Your task to perform on an android device: change your default location settings in chrome Image 0: 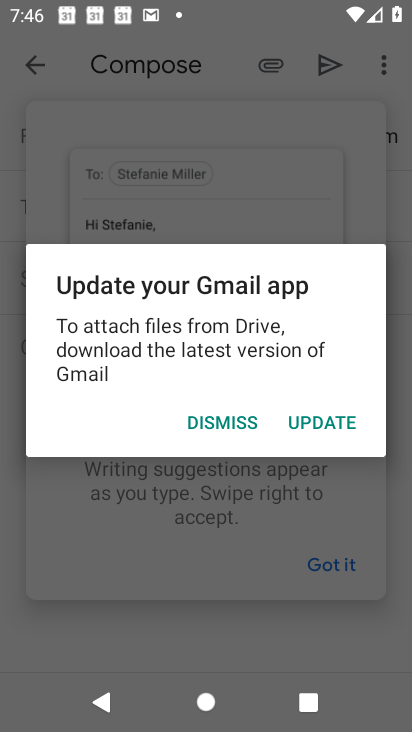
Step 0: press home button
Your task to perform on an android device: change your default location settings in chrome Image 1: 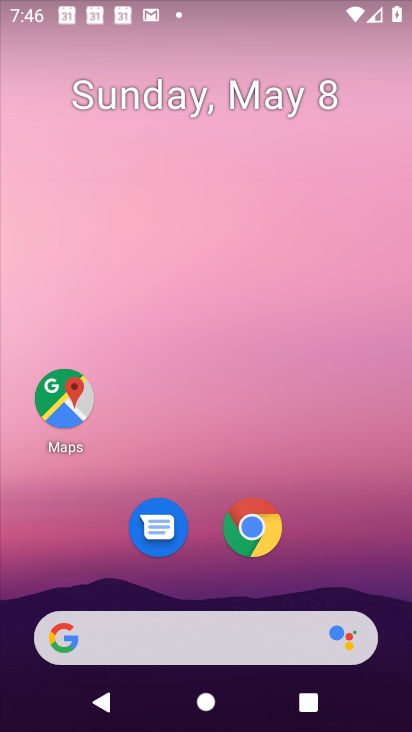
Step 1: click (265, 520)
Your task to perform on an android device: change your default location settings in chrome Image 2: 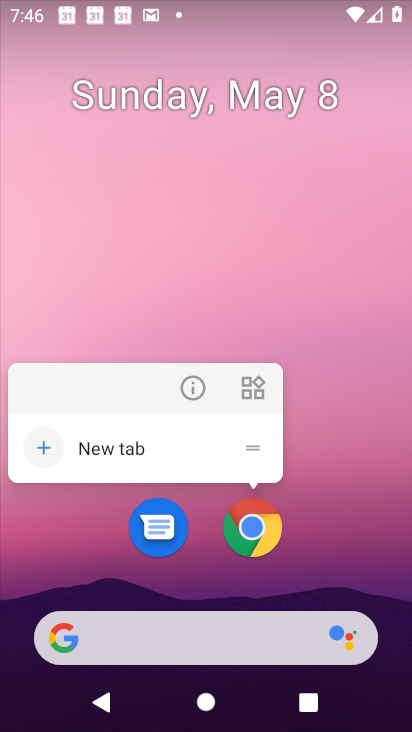
Step 2: click (266, 519)
Your task to perform on an android device: change your default location settings in chrome Image 3: 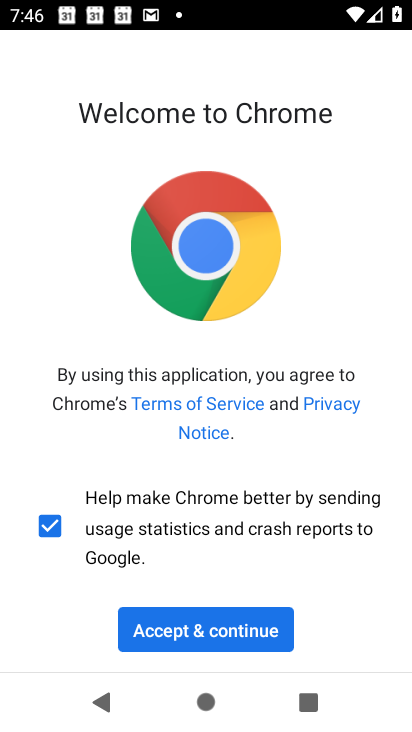
Step 3: click (206, 635)
Your task to perform on an android device: change your default location settings in chrome Image 4: 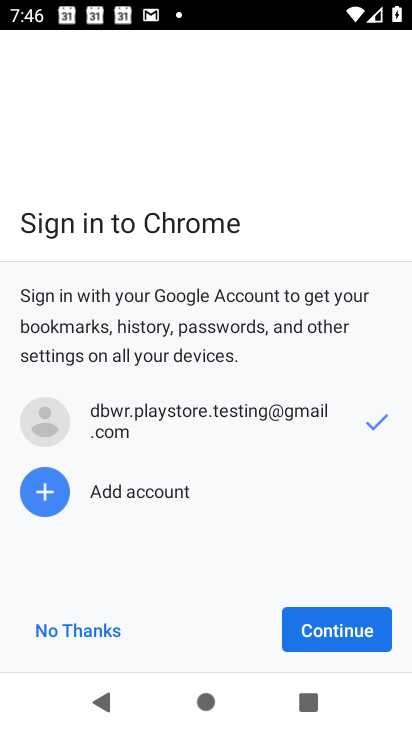
Step 4: click (326, 637)
Your task to perform on an android device: change your default location settings in chrome Image 5: 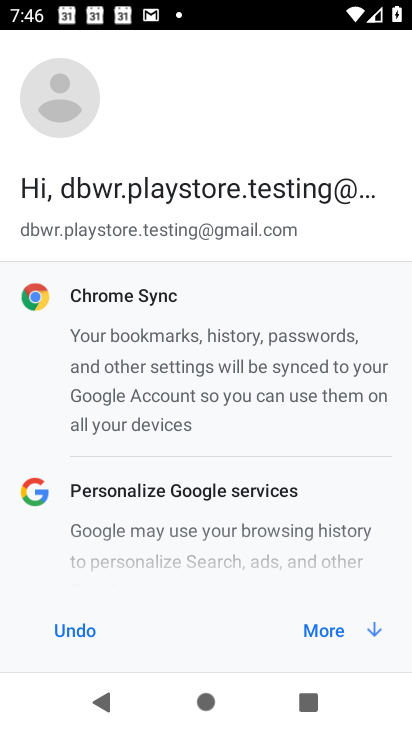
Step 5: click (316, 638)
Your task to perform on an android device: change your default location settings in chrome Image 6: 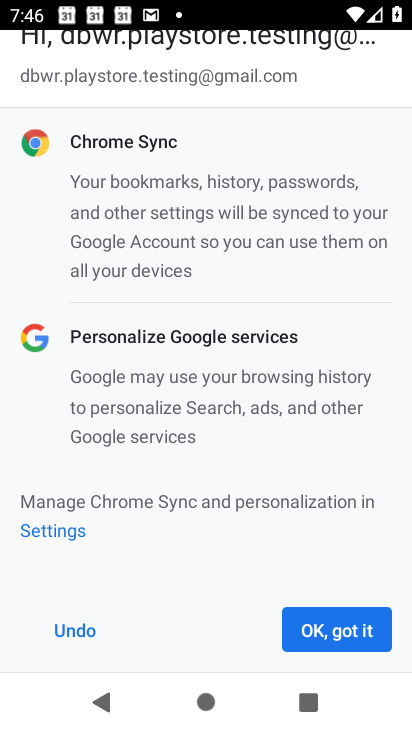
Step 6: click (316, 638)
Your task to perform on an android device: change your default location settings in chrome Image 7: 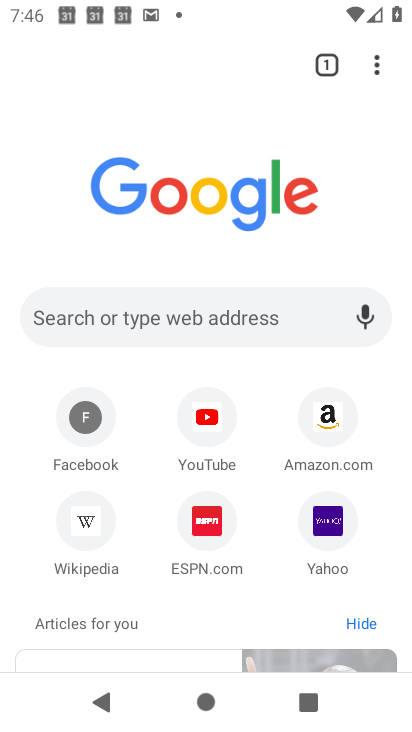
Step 7: click (376, 65)
Your task to perform on an android device: change your default location settings in chrome Image 8: 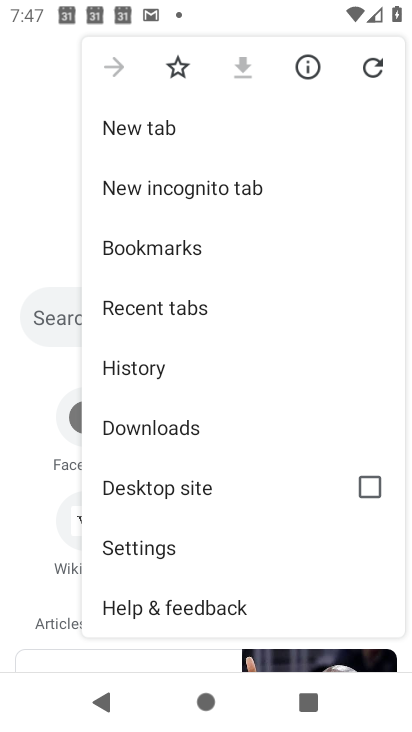
Step 8: click (196, 558)
Your task to perform on an android device: change your default location settings in chrome Image 9: 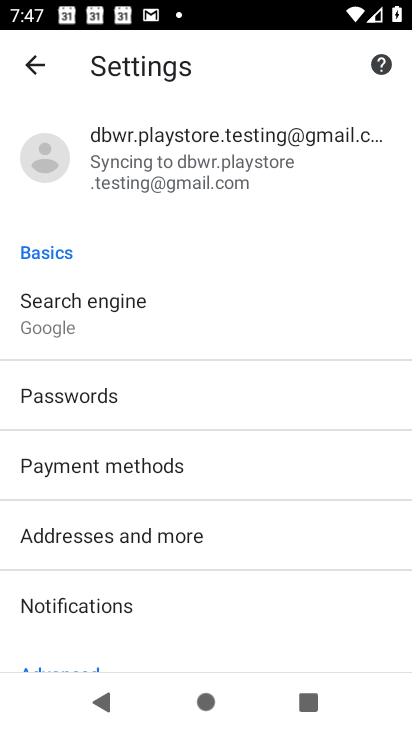
Step 9: drag from (192, 615) to (194, 452)
Your task to perform on an android device: change your default location settings in chrome Image 10: 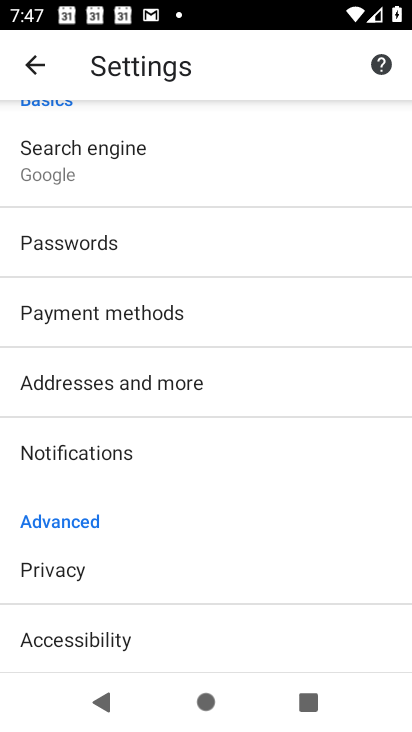
Step 10: drag from (176, 611) to (199, 455)
Your task to perform on an android device: change your default location settings in chrome Image 11: 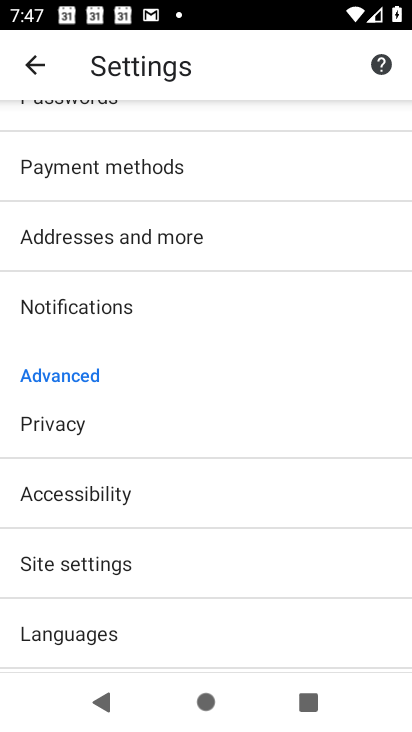
Step 11: drag from (188, 642) to (256, 281)
Your task to perform on an android device: change your default location settings in chrome Image 12: 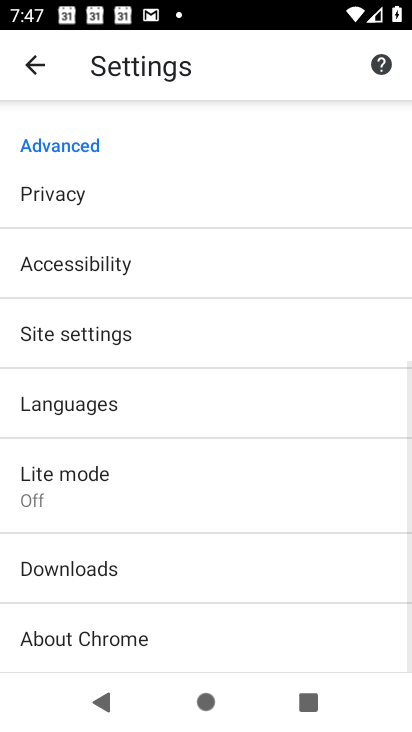
Step 12: click (188, 339)
Your task to perform on an android device: change your default location settings in chrome Image 13: 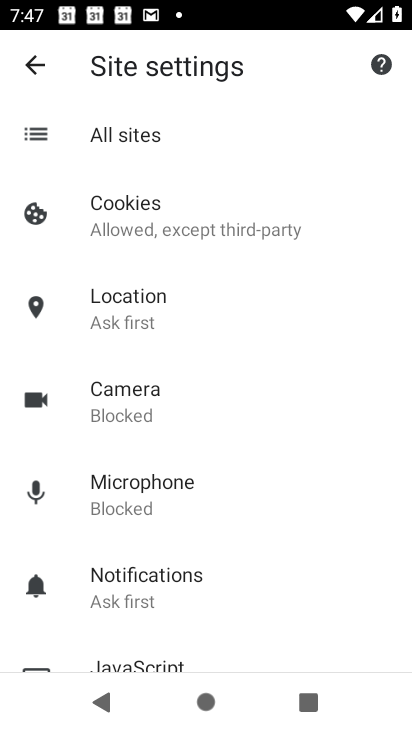
Step 13: click (219, 314)
Your task to perform on an android device: change your default location settings in chrome Image 14: 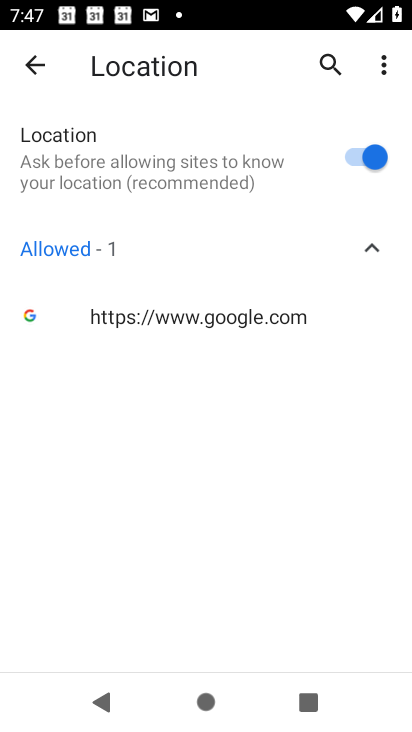
Step 14: click (339, 152)
Your task to perform on an android device: change your default location settings in chrome Image 15: 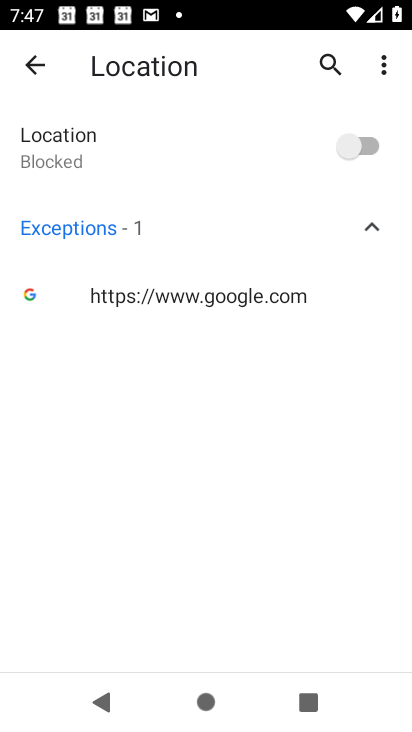
Step 15: task complete